Your task to perform on an android device: allow cookies in the chrome app Image 0: 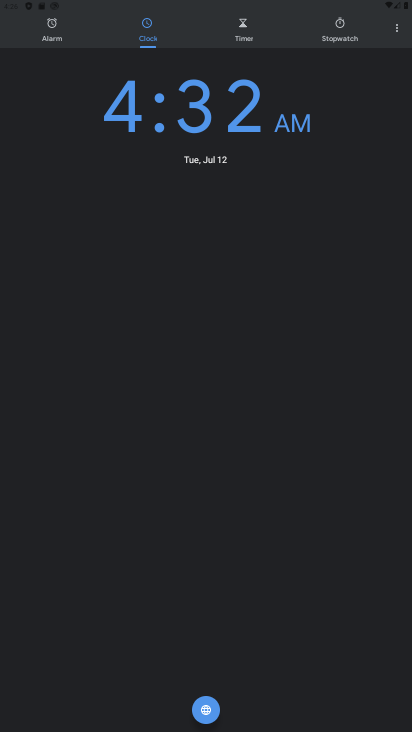
Step 0: press home button
Your task to perform on an android device: allow cookies in the chrome app Image 1: 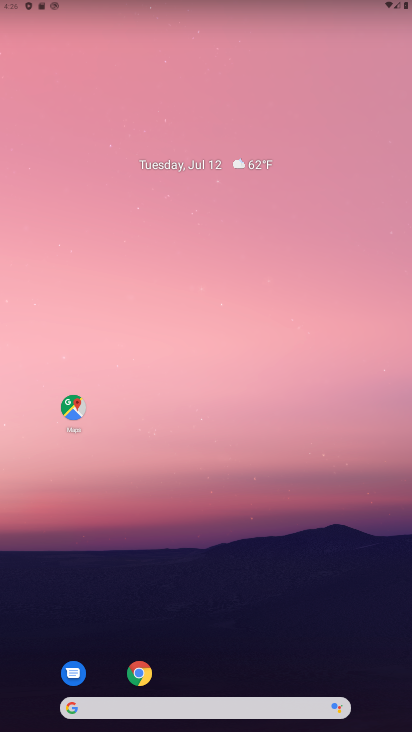
Step 1: click (143, 671)
Your task to perform on an android device: allow cookies in the chrome app Image 2: 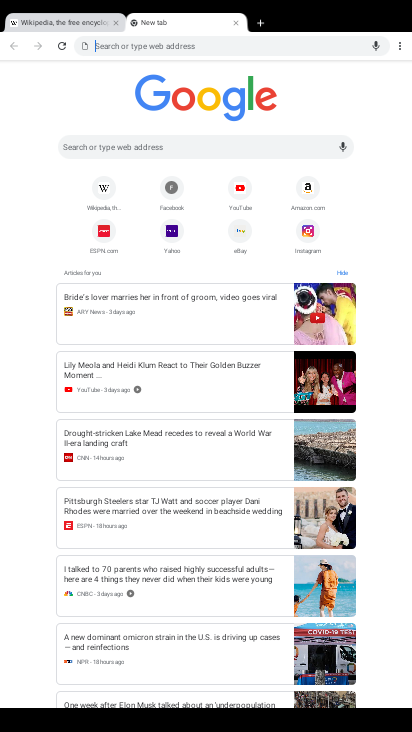
Step 2: click (403, 45)
Your task to perform on an android device: allow cookies in the chrome app Image 3: 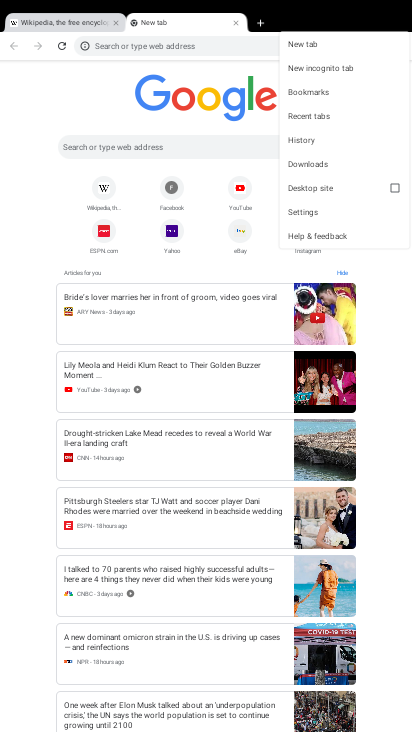
Step 3: click (306, 211)
Your task to perform on an android device: allow cookies in the chrome app Image 4: 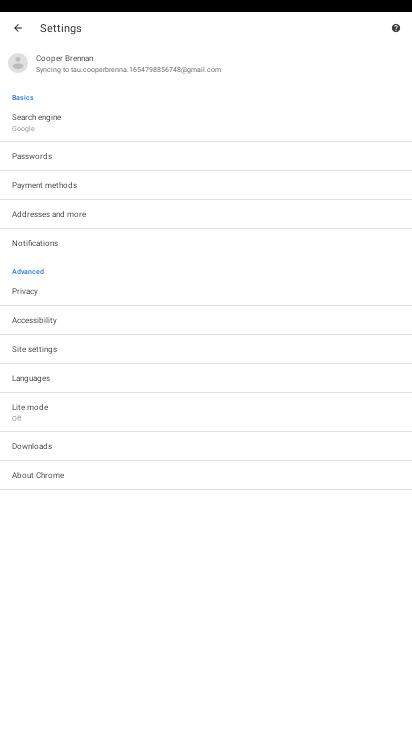
Step 4: click (44, 345)
Your task to perform on an android device: allow cookies in the chrome app Image 5: 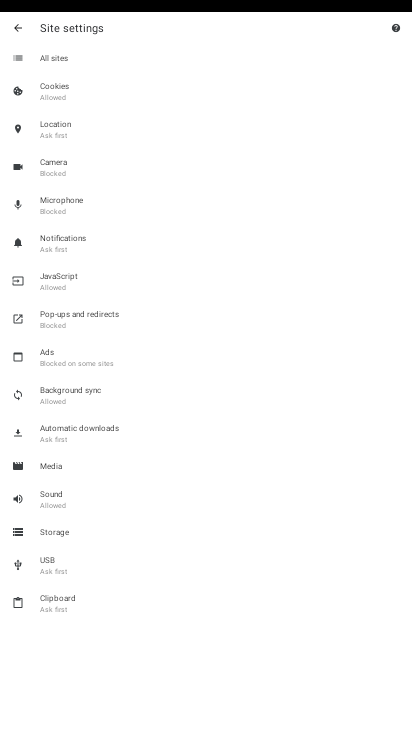
Step 5: click (62, 87)
Your task to perform on an android device: allow cookies in the chrome app Image 6: 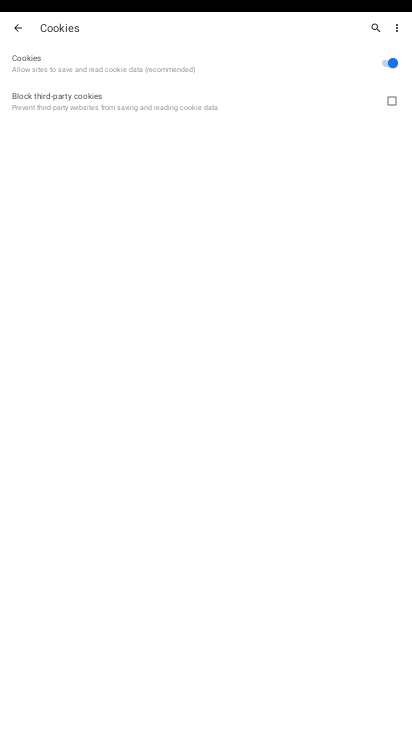
Step 6: task complete